Your task to perform on an android device: Open Google Image 0: 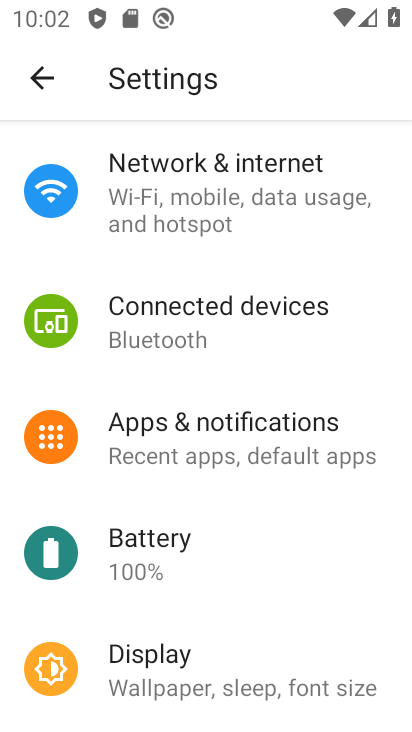
Step 0: press home button
Your task to perform on an android device: Open Google Image 1: 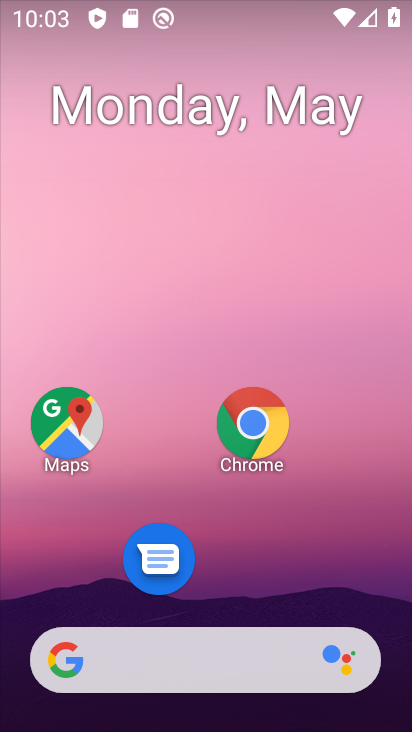
Step 1: click (135, 661)
Your task to perform on an android device: Open Google Image 2: 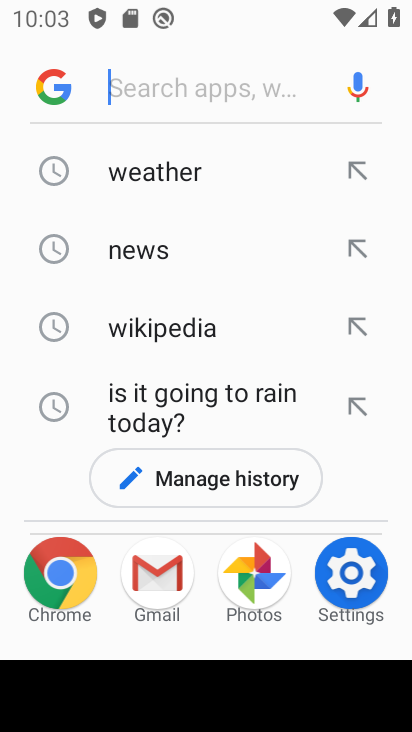
Step 2: task complete